Your task to perform on an android device: read, delete, or share a saved page in the chrome app Image 0: 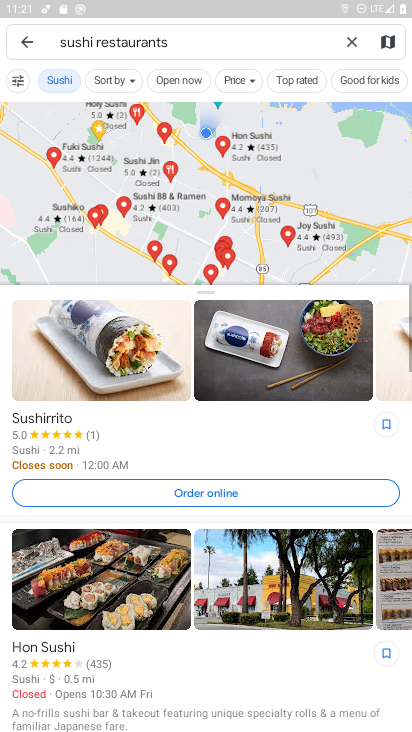
Step 0: press home button
Your task to perform on an android device: read, delete, or share a saved page in the chrome app Image 1: 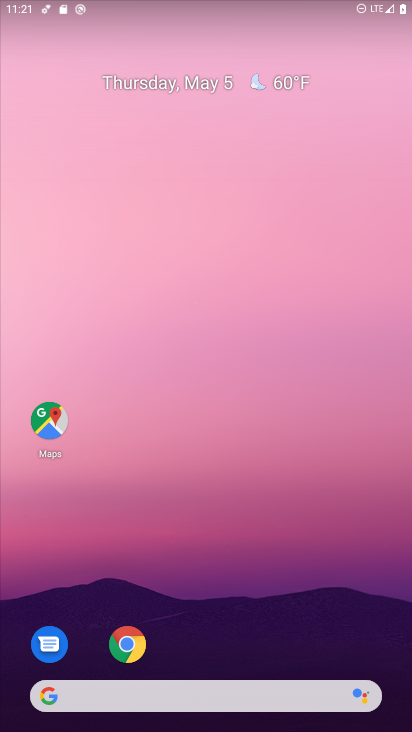
Step 1: drag from (295, 635) to (287, 241)
Your task to perform on an android device: read, delete, or share a saved page in the chrome app Image 2: 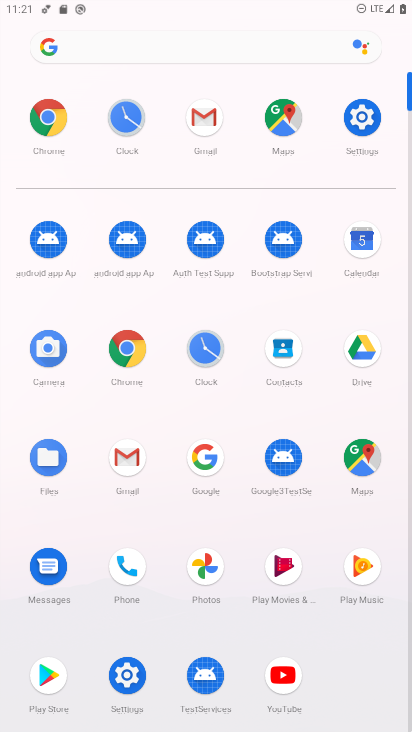
Step 2: click (125, 354)
Your task to perform on an android device: read, delete, or share a saved page in the chrome app Image 3: 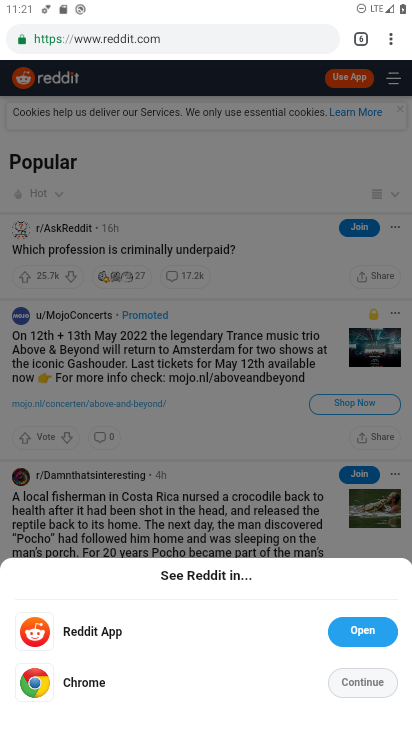
Step 3: drag from (387, 39) to (263, 141)
Your task to perform on an android device: read, delete, or share a saved page in the chrome app Image 4: 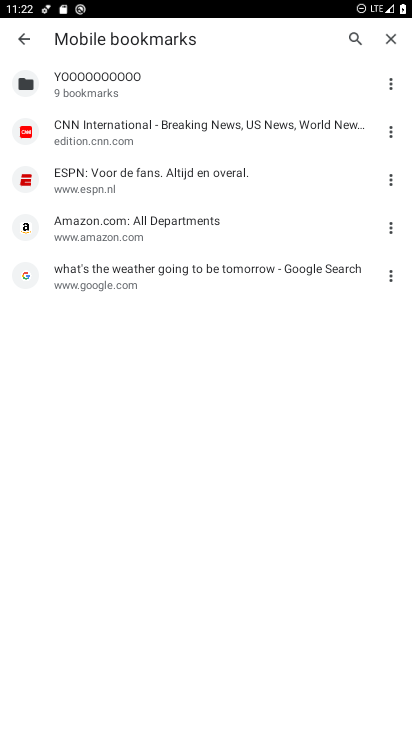
Step 4: click (389, 82)
Your task to perform on an android device: read, delete, or share a saved page in the chrome app Image 5: 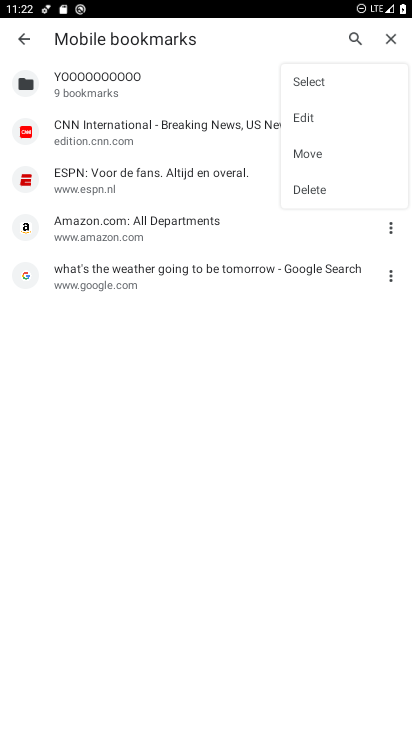
Step 5: click (309, 183)
Your task to perform on an android device: read, delete, or share a saved page in the chrome app Image 6: 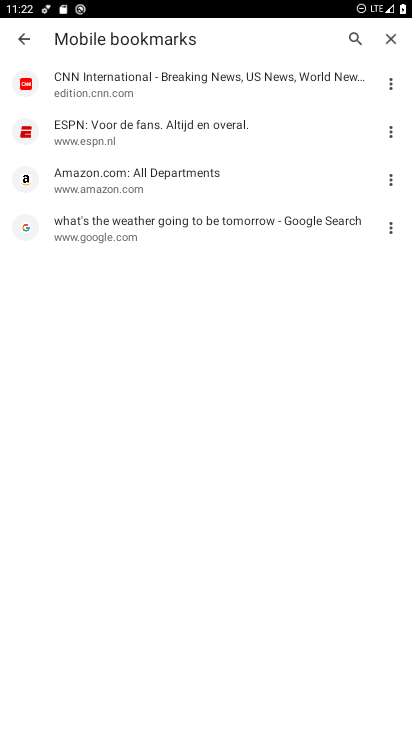
Step 6: task complete